Your task to perform on an android device: set the timer Image 0: 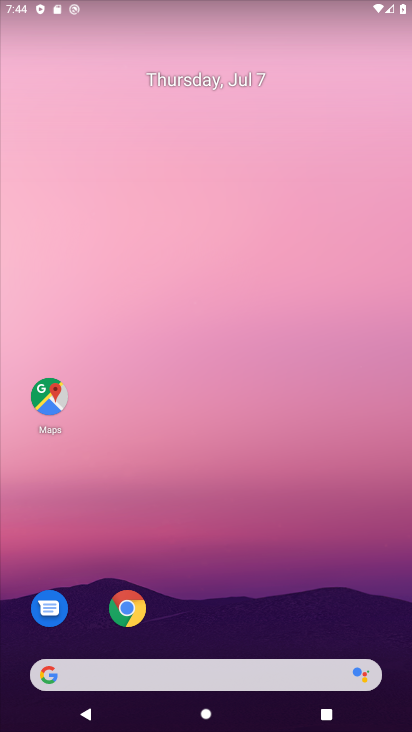
Step 0: drag from (223, 593) to (226, 112)
Your task to perform on an android device: set the timer Image 1: 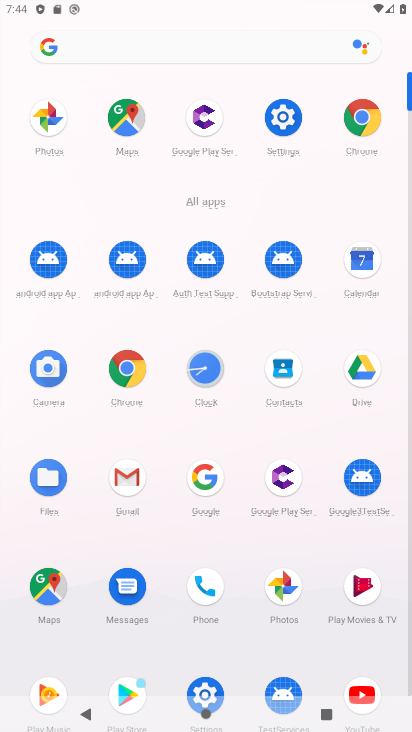
Step 1: click (196, 383)
Your task to perform on an android device: set the timer Image 2: 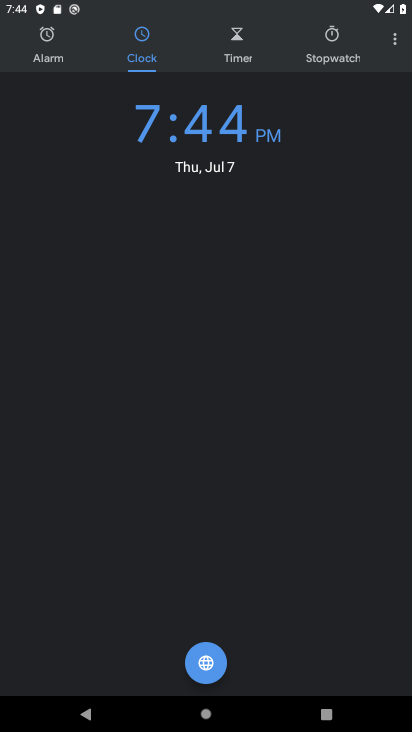
Step 2: click (246, 52)
Your task to perform on an android device: set the timer Image 3: 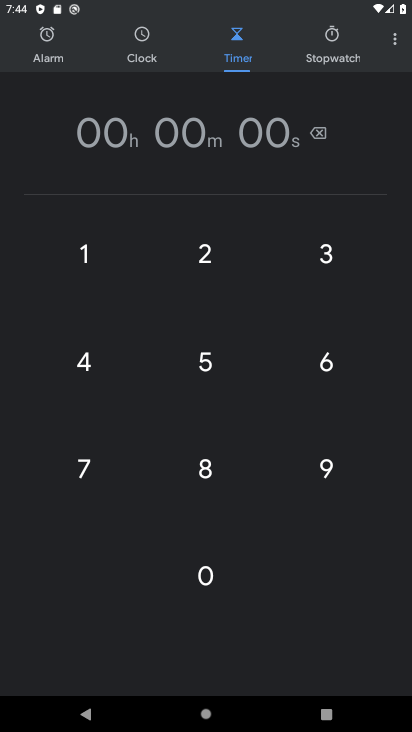
Step 3: click (272, 125)
Your task to perform on an android device: set the timer Image 4: 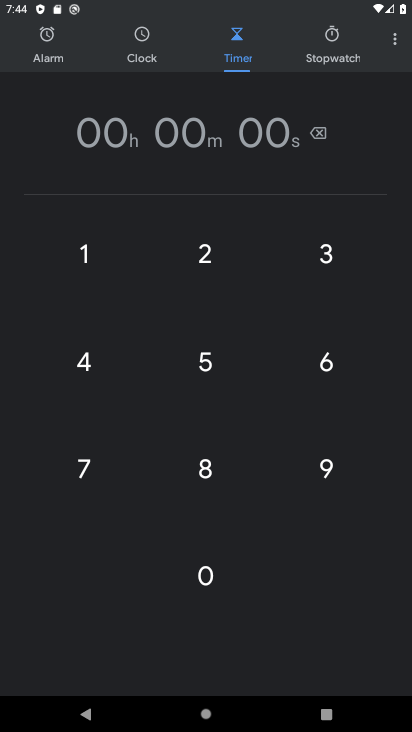
Step 4: click (261, 135)
Your task to perform on an android device: set the timer Image 5: 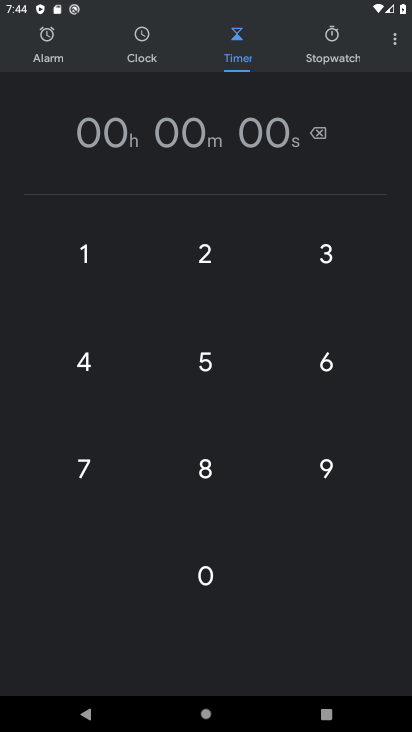
Step 5: type "22"
Your task to perform on an android device: set the timer Image 6: 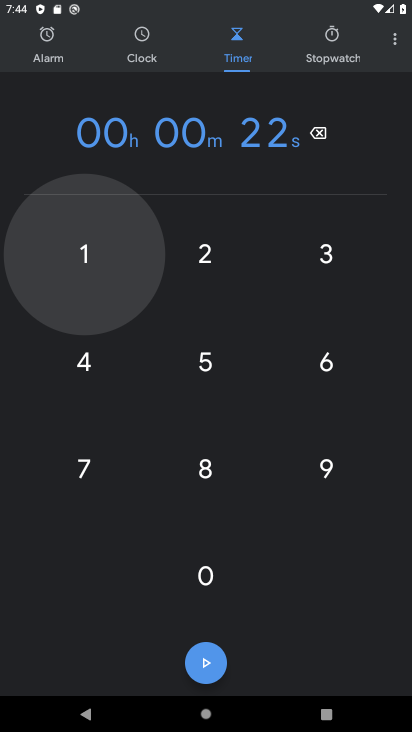
Step 6: click (212, 660)
Your task to perform on an android device: set the timer Image 7: 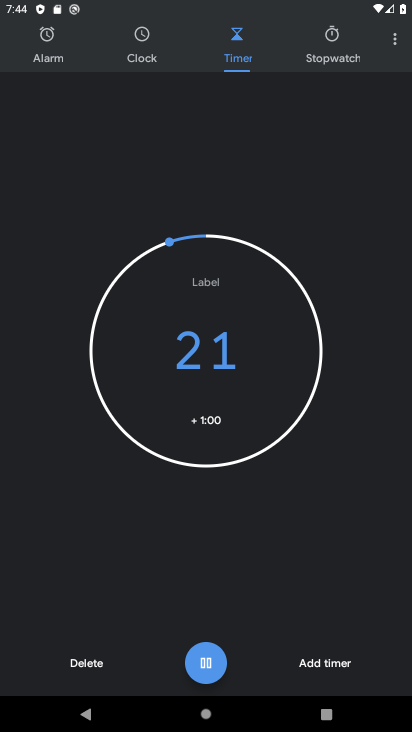
Step 7: task complete